Your task to perform on an android device: Show me recent news Image 0: 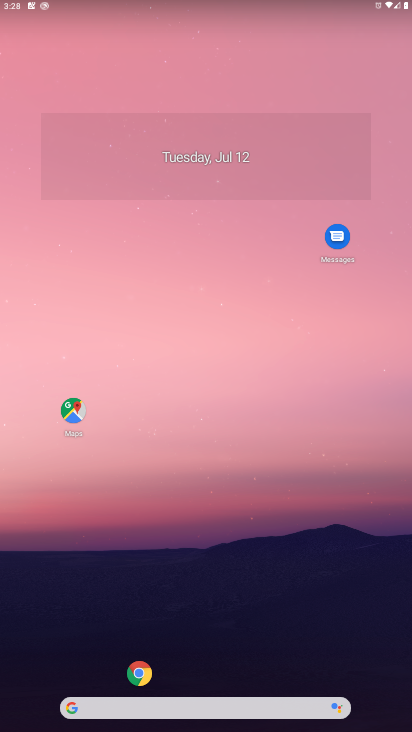
Step 0: click (96, 705)
Your task to perform on an android device: Show me recent news Image 1: 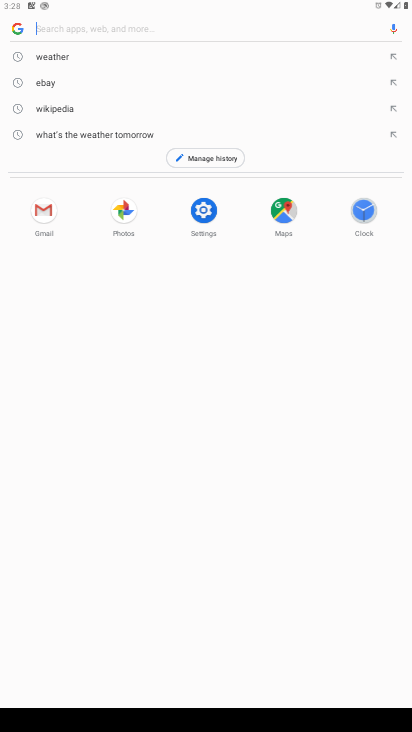
Step 1: type "Show me recent news"
Your task to perform on an android device: Show me recent news Image 2: 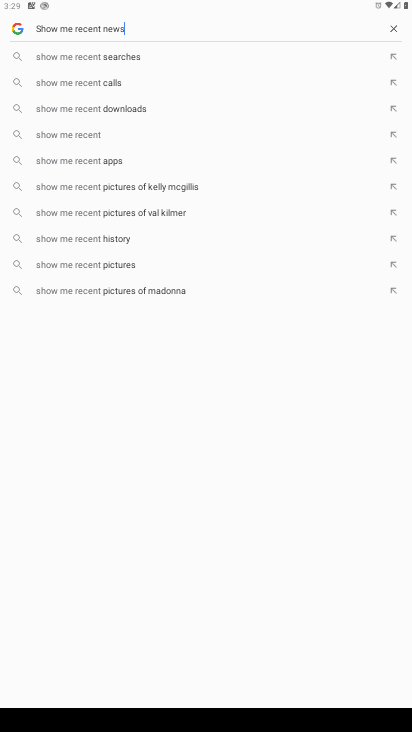
Step 2: type ""
Your task to perform on an android device: Show me recent news Image 3: 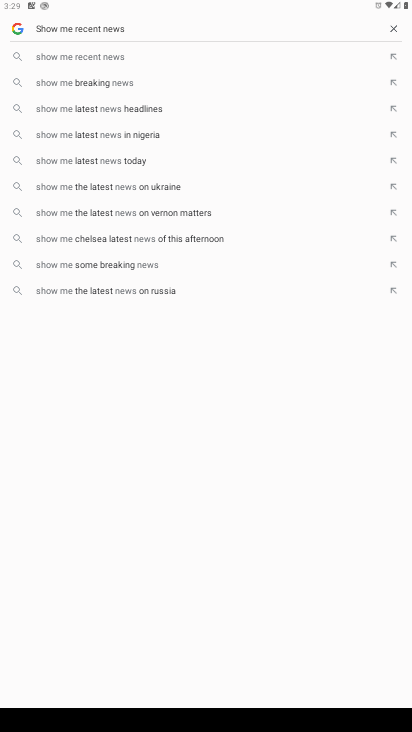
Step 3: click (55, 54)
Your task to perform on an android device: Show me recent news Image 4: 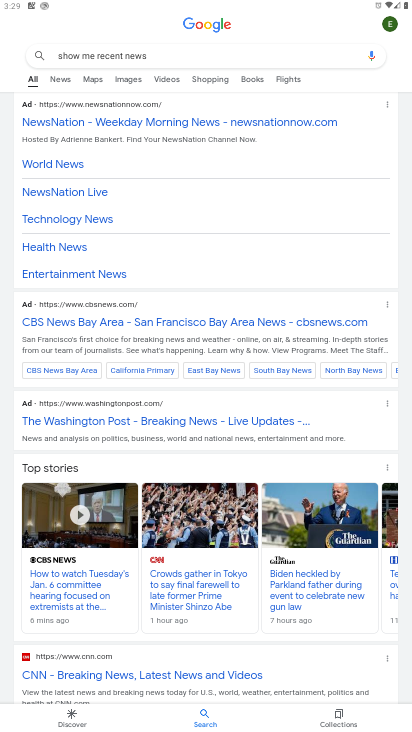
Step 4: task complete